Your task to perform on an android device: set the stopwatch Image 0: 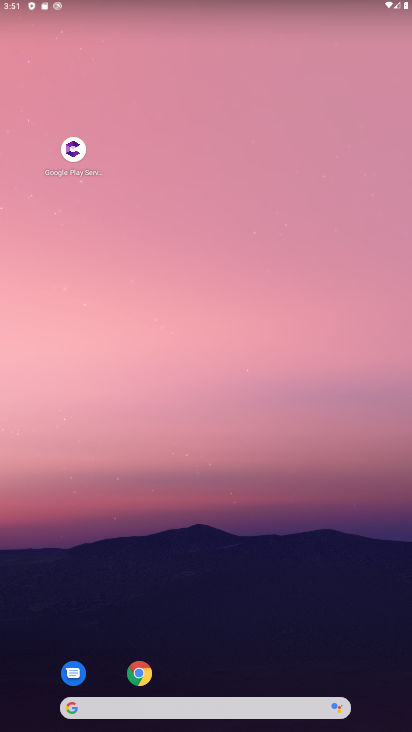
Step 0: drag from (203, 572) to (145, 57)
Your task to perform on an android device: set the stopwatch Image 1: 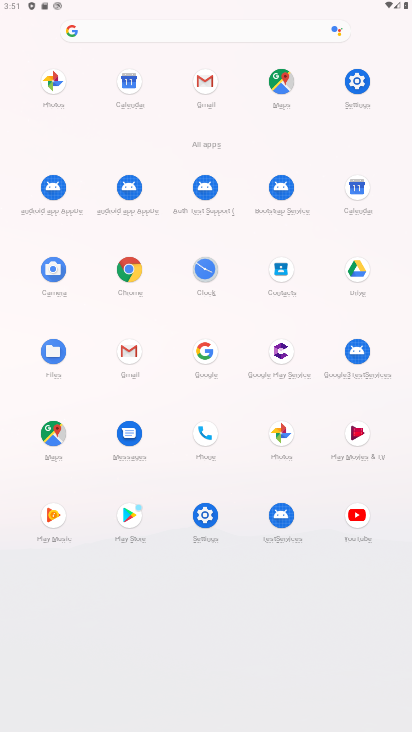
Step 1: click (197, 260)
Your task to perform on an android device: set the stopwatch Image 2: 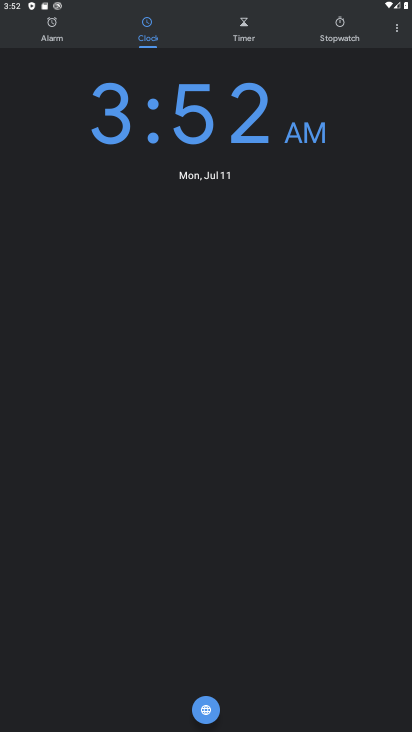
Step 2: click (342, 32)
Your task to perform on an android device: set the stopwatch Image 3: 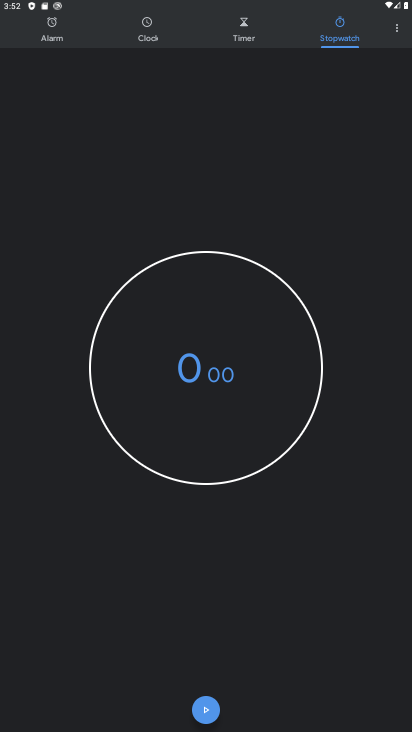
Step 3: click (208, 707)
Your task to perform on an android device: set the stopwatch Image 4: 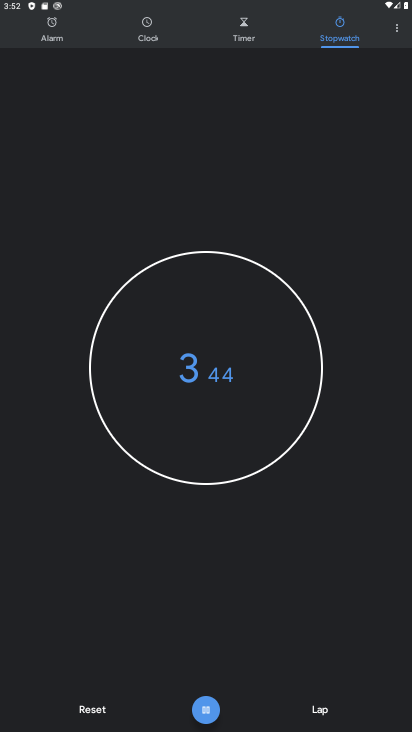
Step 4: task complete